Your task to perform on an android device: toggle notification dots Image 0: 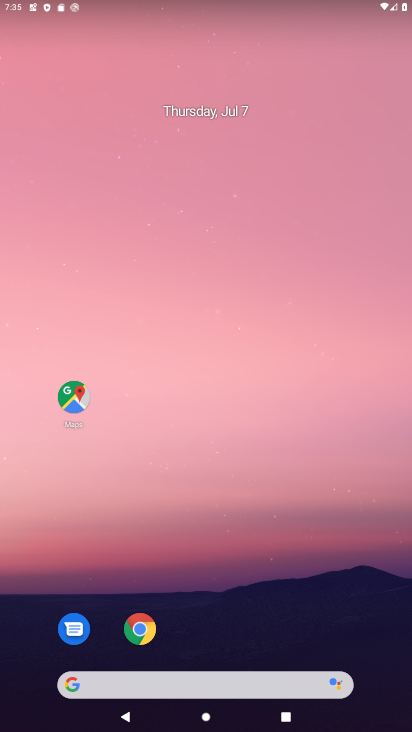
Step 0: drag from (366, 613) to (357, 121)
Your task to perform on an android device: toggle notification dots Image 1: 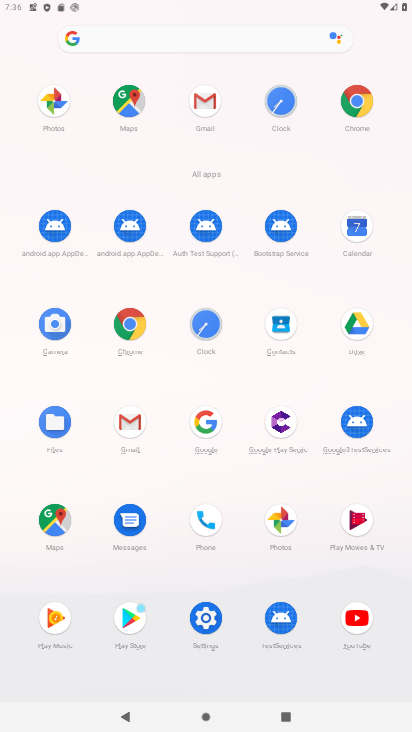
Step 1: click (206, 623)
Your task to perform on an android device: toggle notification dots Image 2: 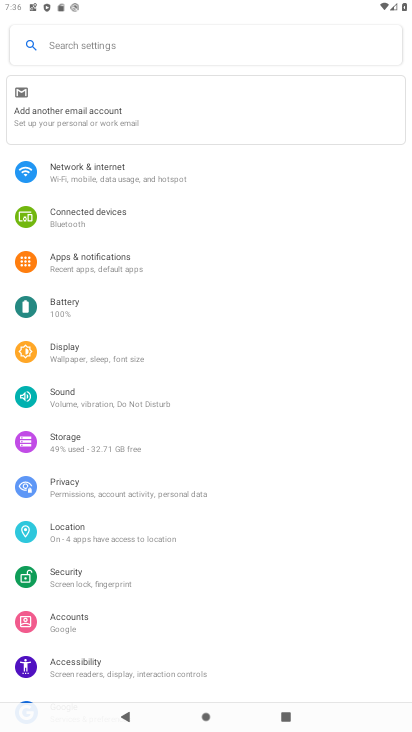
Step 2: drag from (350, 580) to (368, 399)
Your task to perform on an android device: toggle notification dots Image 3: 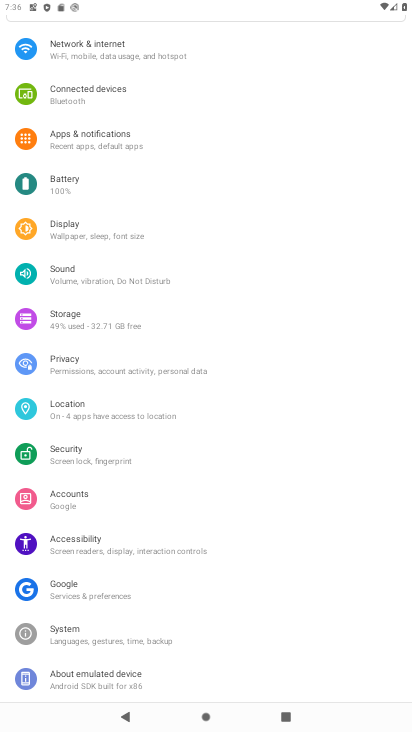
Step 3: drag from (348, 598) to (352, 405)
Your task to perform on an android device: toggle notification dots Image 4: 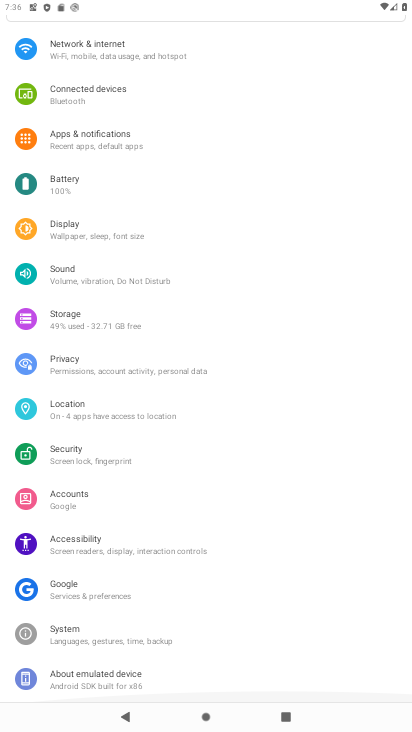
Step 4: drag from (353, 308) to (345, 433)
Your task to perform on an android device: toggle notification dots Image 5: 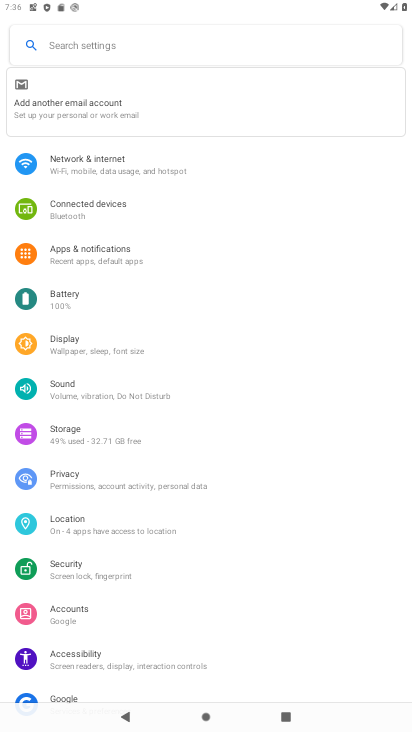
Step 5: drag from (336, 297) to (328, 488)
Your task to perform on an android device: toggle notification dots Image 6: 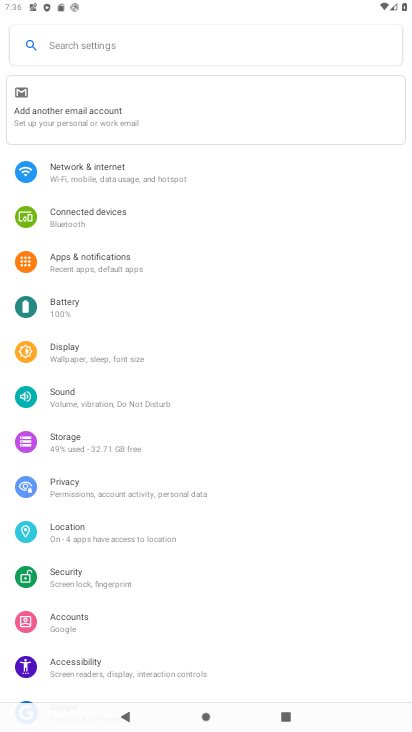
Step 6: click (165, 271)
Your task to perform on an android device: toggle notification dots Image 7: 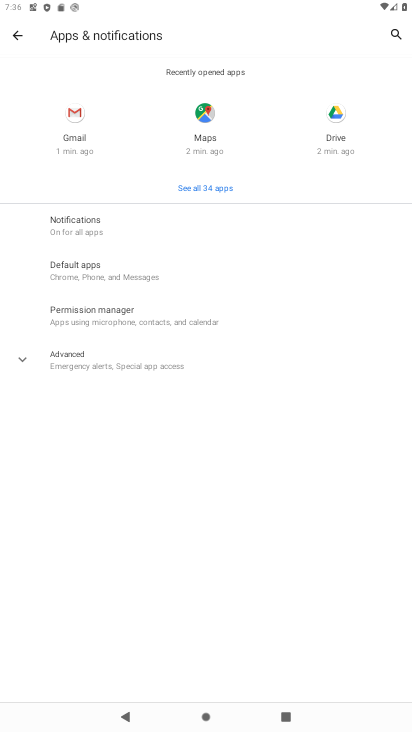
Step 7: click (129, 231)
Your task to perform on an android device: toggle notification dots Image 8: 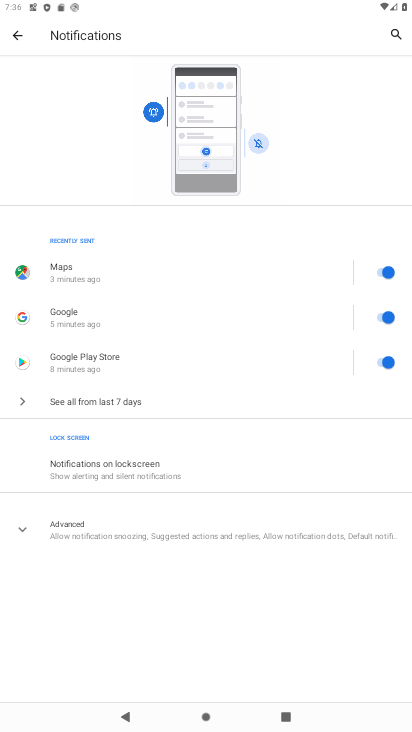
Step 8: click (216, 532)
Your task to perform on an android device: toggle notification dots Image 9: 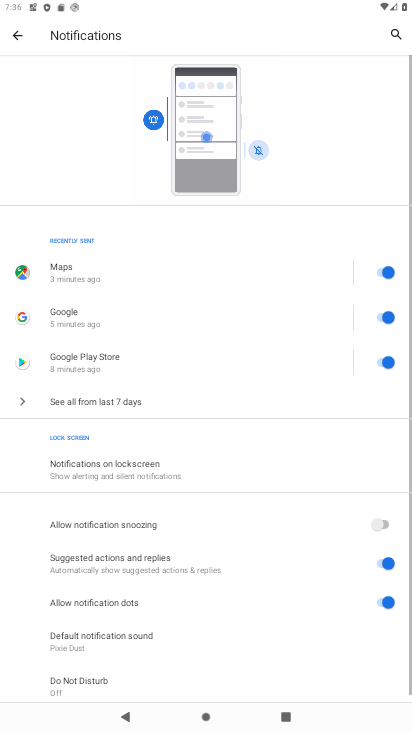
Step 9: drag from (243, 547) to (256, 398)
Your task to perform on an android device: toggle notification dots Image 10: 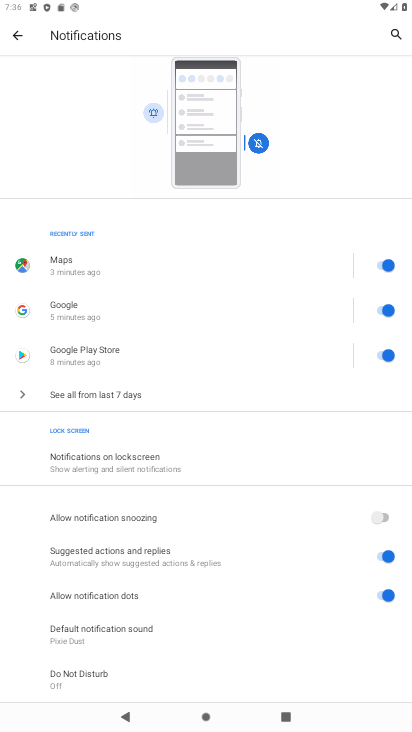
Step 10: click (378, 597)
Your task to perform on an android device: toggle notification dots Image 11: 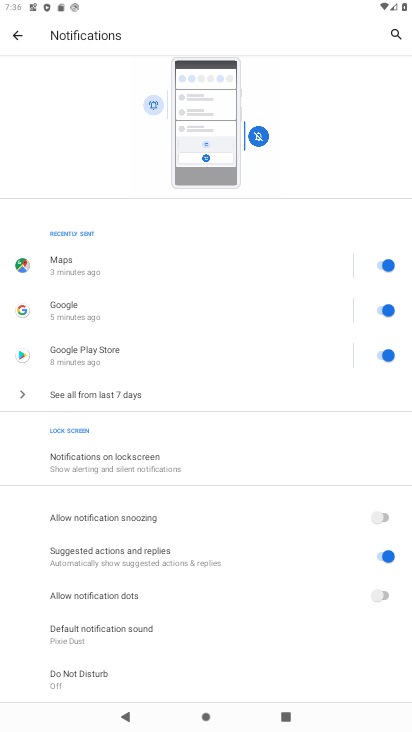
Step 11: task complete